Your task to perform on an android device: Check the news Image 0: 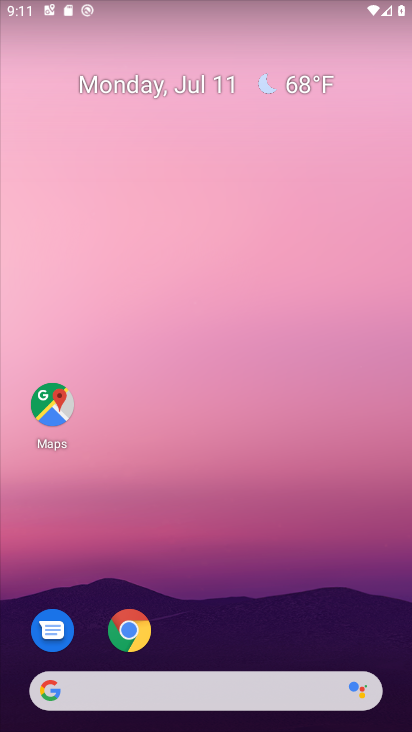
Step 0: click (203, 696)
Your task to perform on an android device: Check the news Image 1: 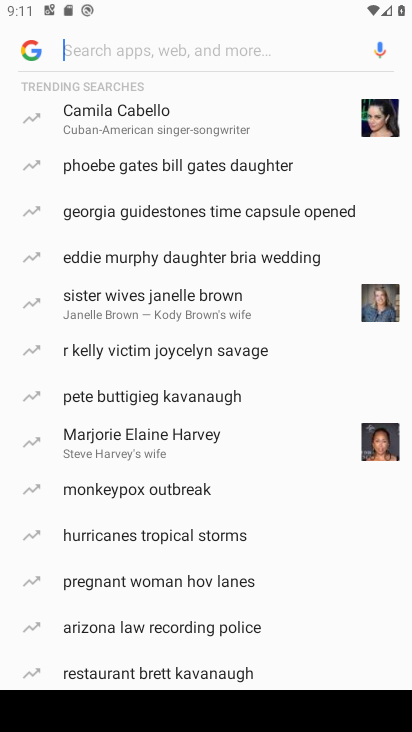
Step 1: type "news"
Your task to perform on an android device: Check the news Image 2: 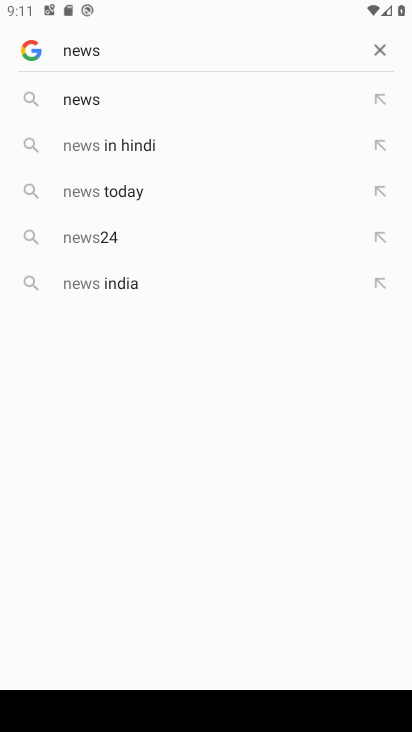
Step 2: click (165, 83)
Your task to perform on an android device: Check the news Image 3: 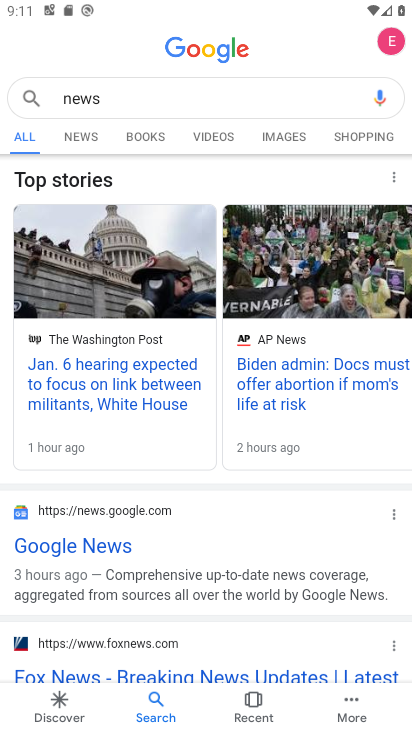
Step 3: task complete